Your task to perform on an android device: Open the Play Movies app and select the watchlist tab. Image 0: 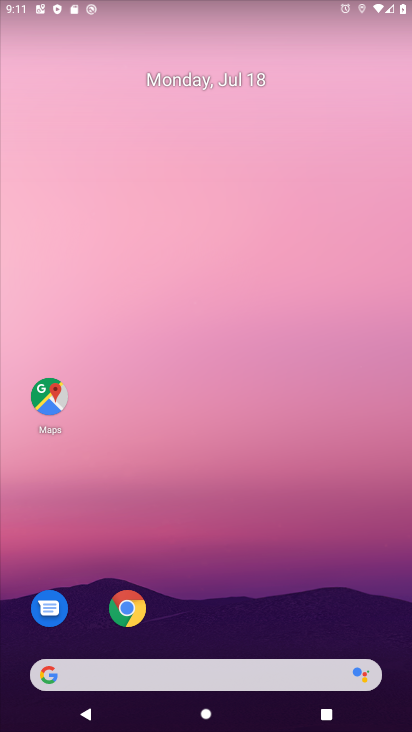
Step 0: drag from (10, 686) to (251, 71)
Your task to perform on an android device: Open the Play Movies app and select the watchlist tab. Image 1: 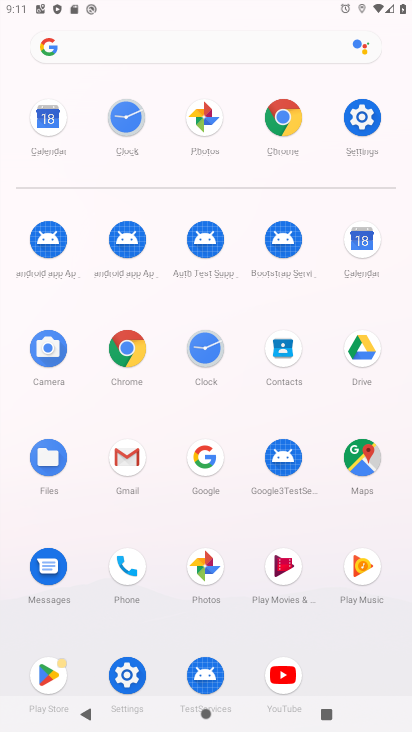
Step 1: click (281, 584)
Your task to perform on an android device: Open the Play Movies app and select the watchlist tab. Image 2: 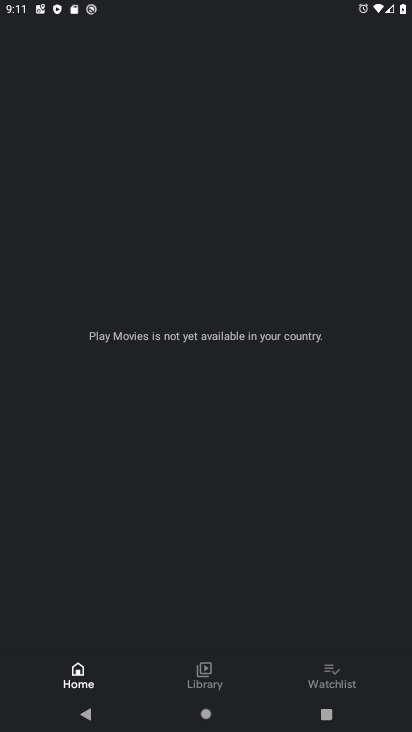
Step 2: click (323, 670)
Your task to perform on an android device: Open the Play Movies app and select the watchlist tab. Image 3: 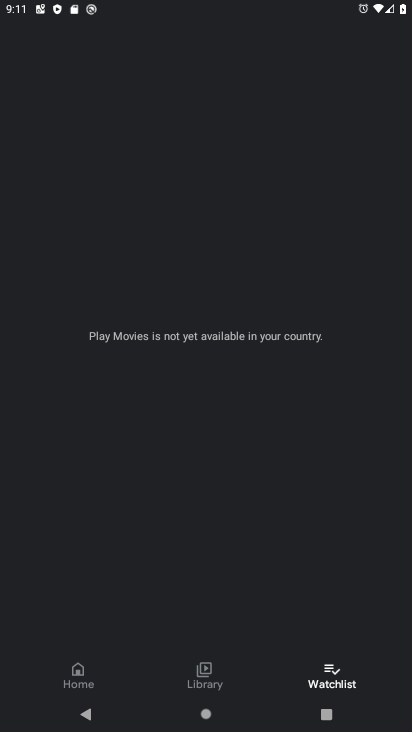
Step 3: task complete